Your task to perform on an android device: open app "Spotify" (install if not already installed) and enter user name: "infallible@icloud.com" and password: "implored" Image 0: 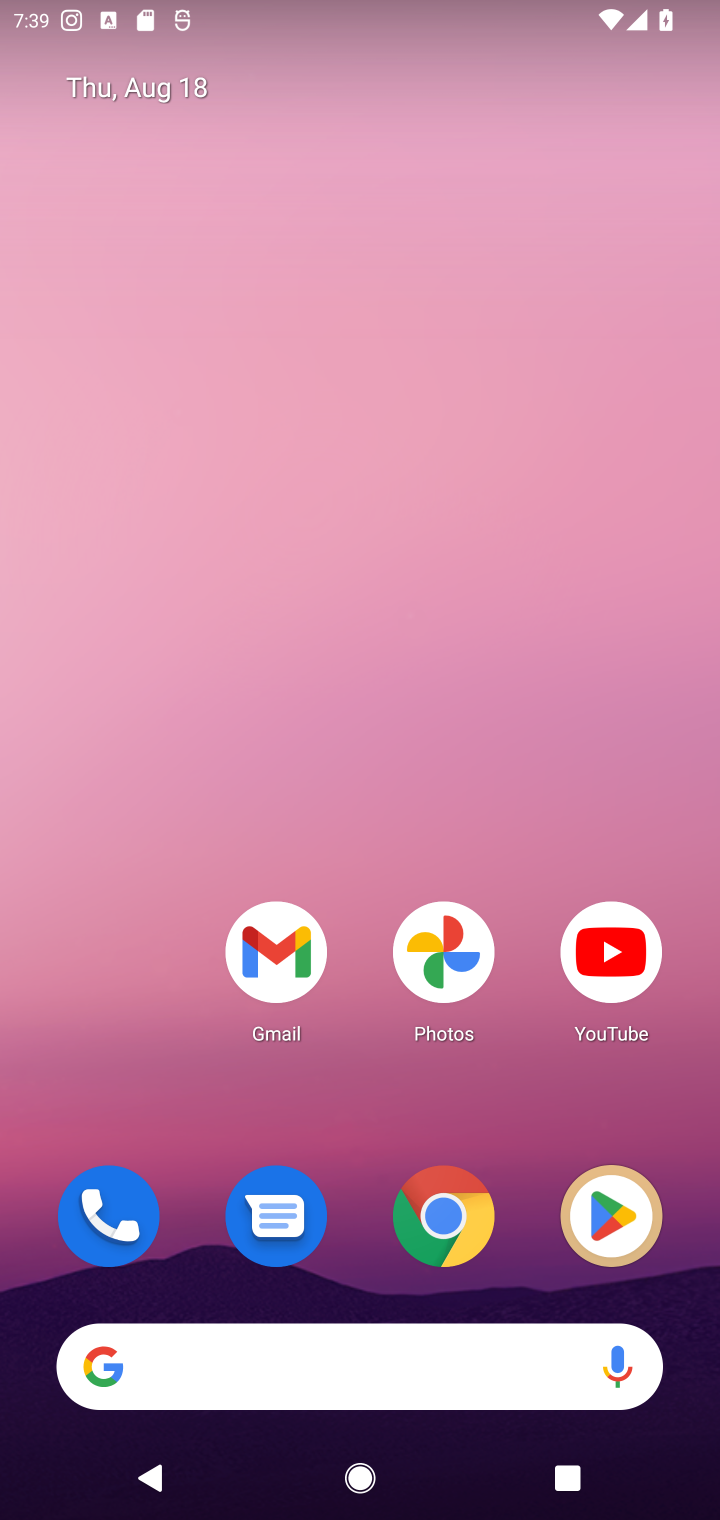
Step 0: click (615, 1209)
Your task to perform on an android device: open app "Spotify" (install if not already installed) and enter user name: "infallible@icloud.com" and password: "implored" Image 1: 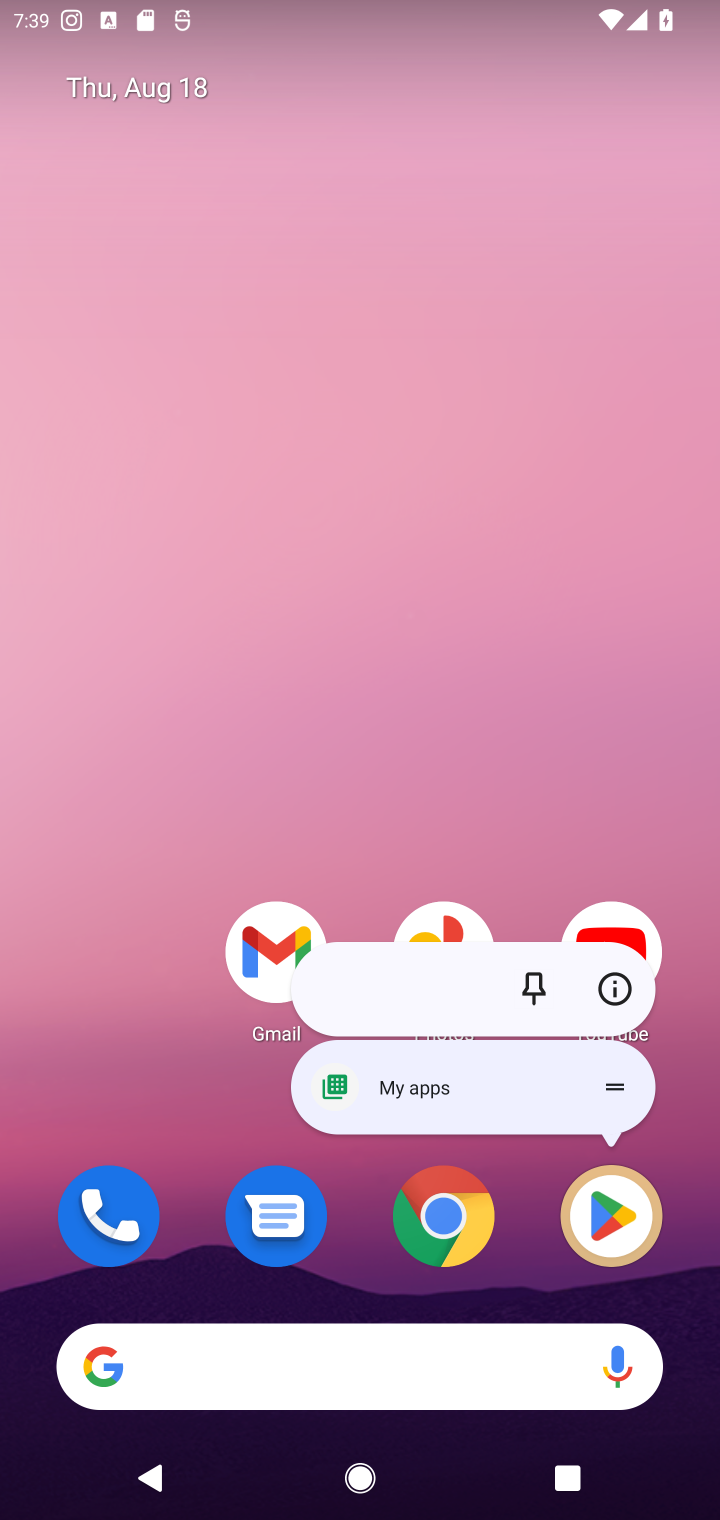
Step 1: click (602, 1194)
Your task to perform on an android device: open app "Spotify" (install if not already installed) and enter user name: "infallible@icloud.com" and password: "implored" Image 2: 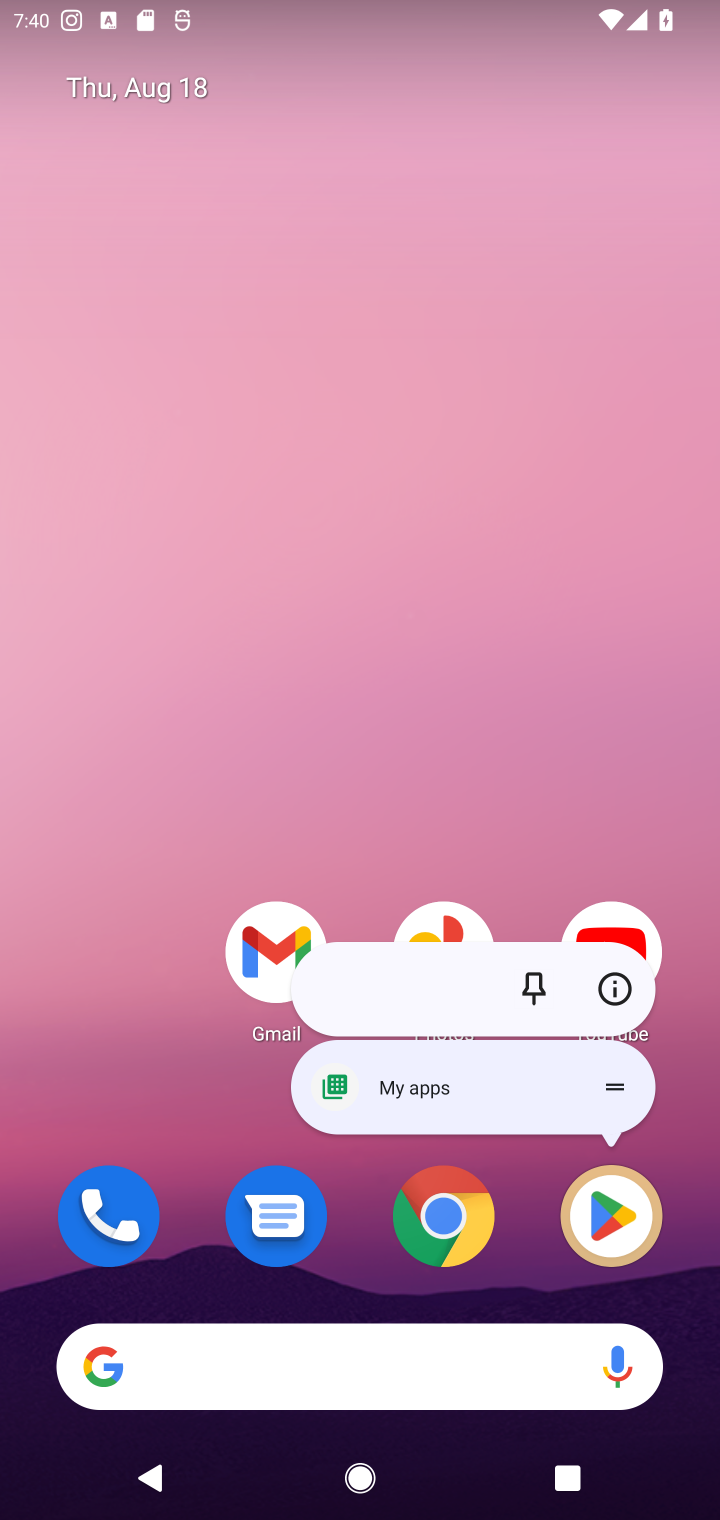
Step 2: click (602, 1194)
Your task to perform on an android device: open app "Spotify" (install if not already installed) and enter user name: "infallible@icloud.com" and password: "implored" Image 3: 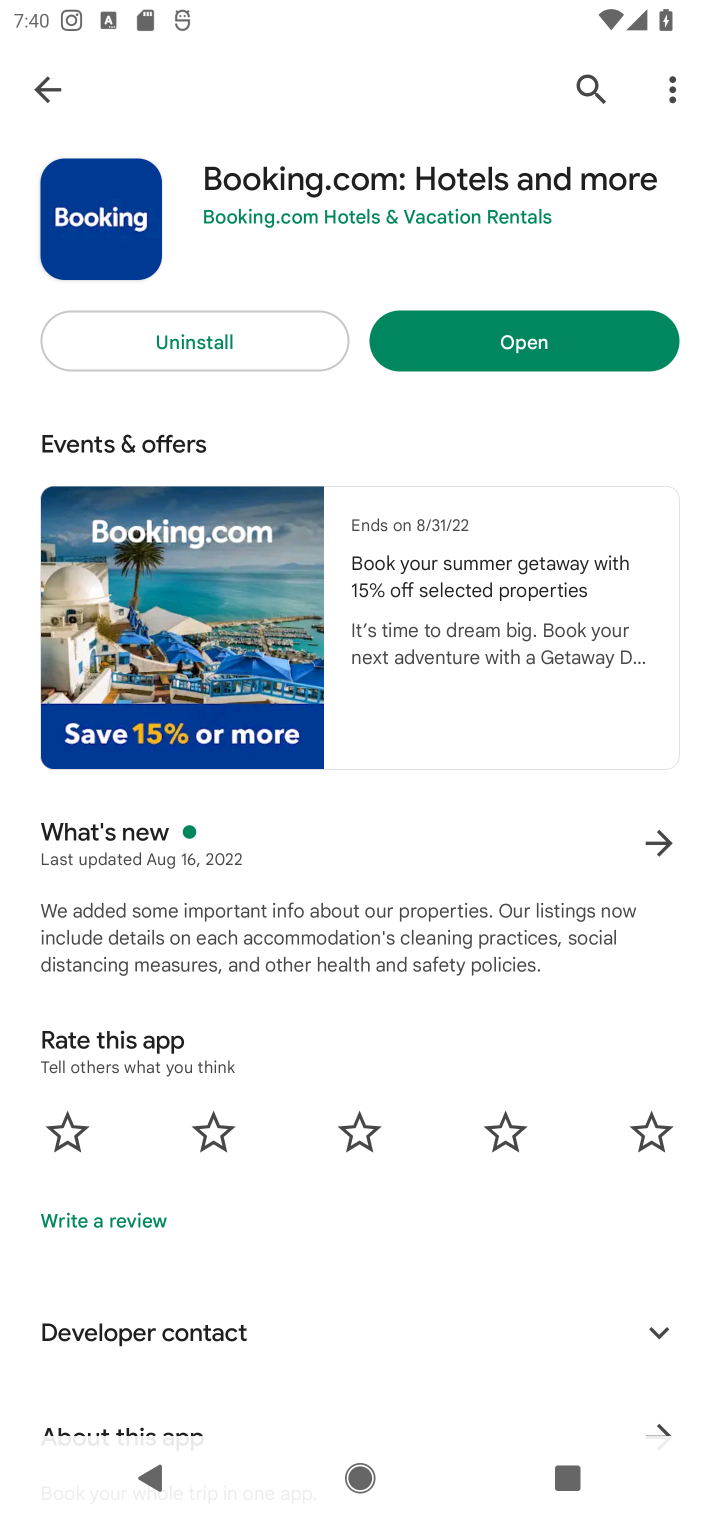
Step 3: click (573, 71)
Your task to perform on an android device: open app "Spotify" (install if not already installed) and enter user name: "infallible@icloud.com" and password: "implored" Image 4: 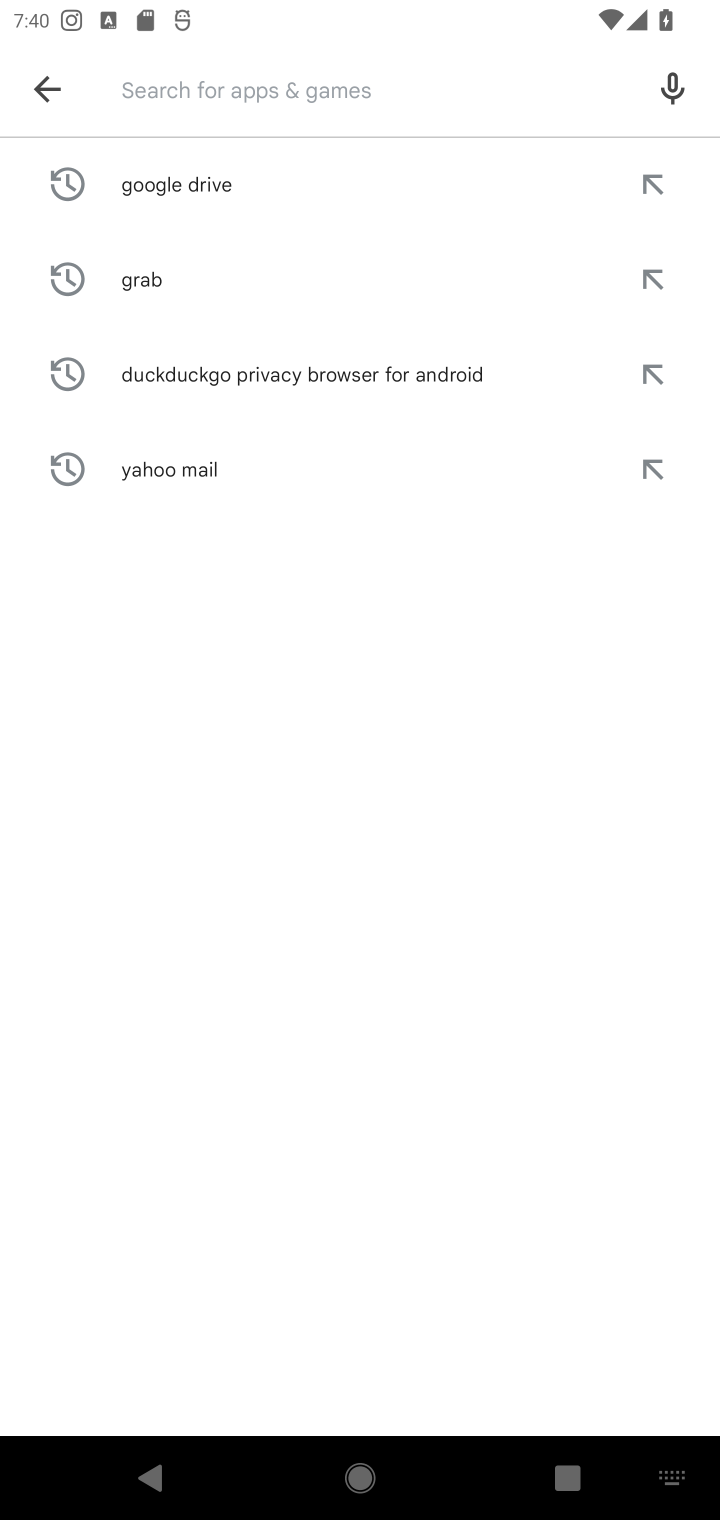
Step 4: type "Spotify"
Your task to perform on an android device: open app "Spotify" (install if not already installed) and enter user name: "infallible@icloud.com" and password: "implored" Image 5: 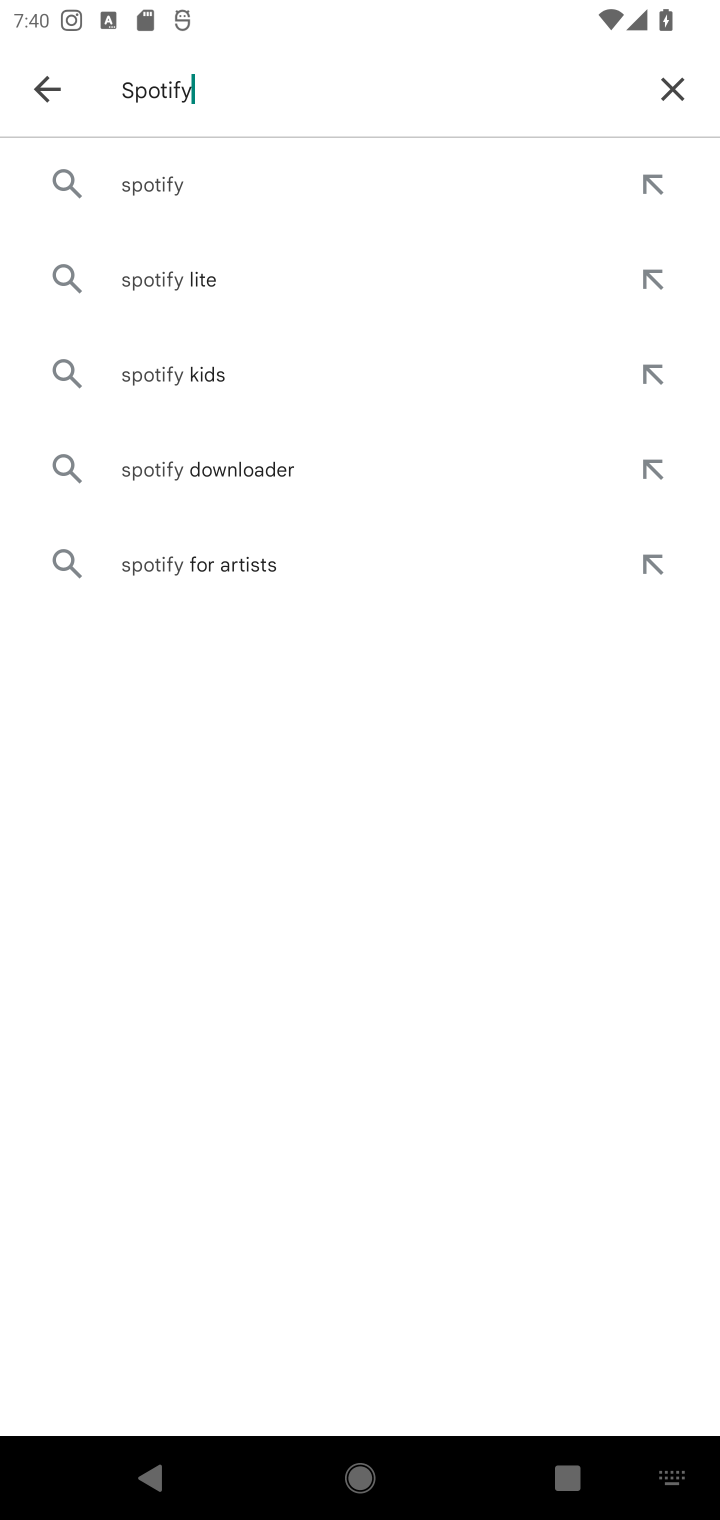
Step 5: click (264, 183)
Your task to perform on an android device: open app "Spotify" (install if not already installed) and enter user name: "infallible@icloud.com" and password: "implored" Image 6: 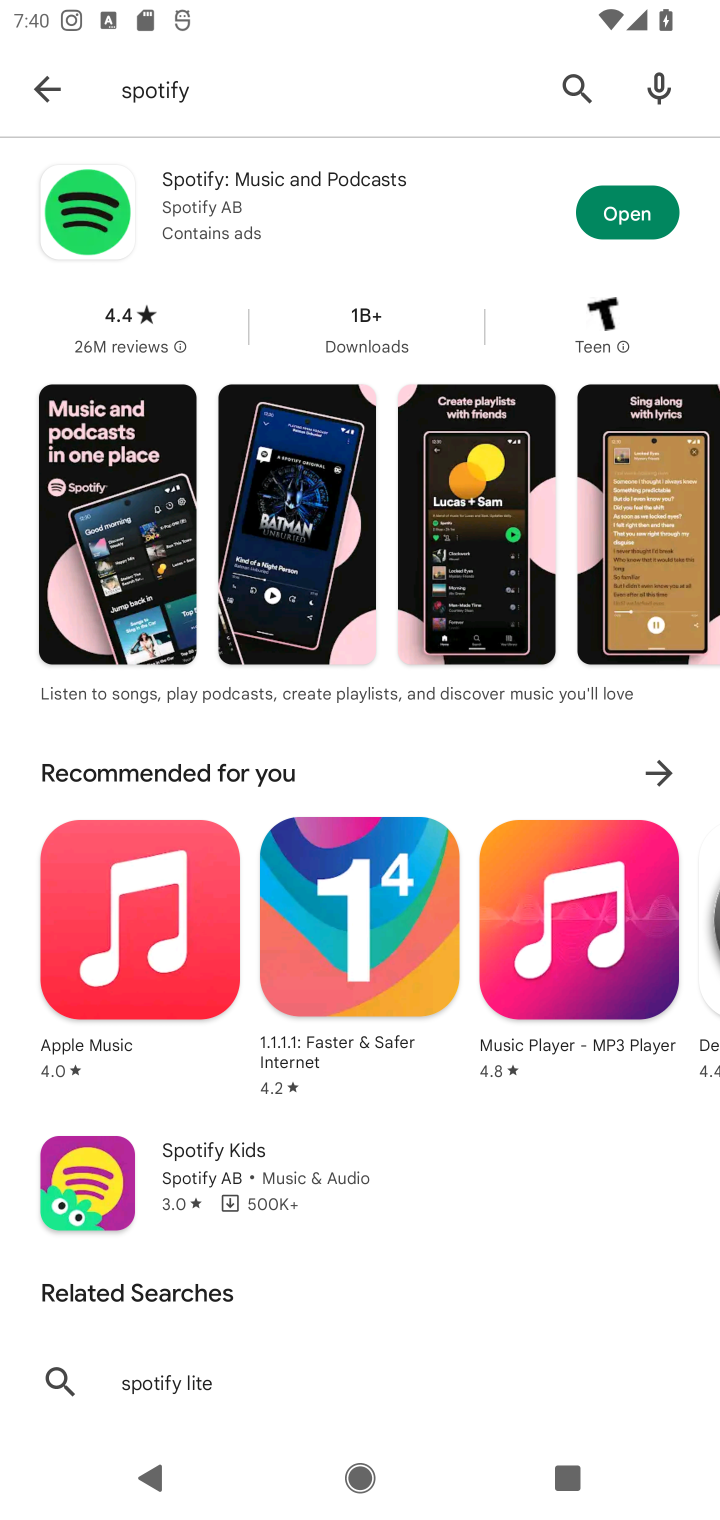
Step 6: click (598, 208)
Your task to perform on an android device: open app "Spotify" (install if not already installed) and enter user name: "infallible@icloud.com" and password: "implored" Image 7: 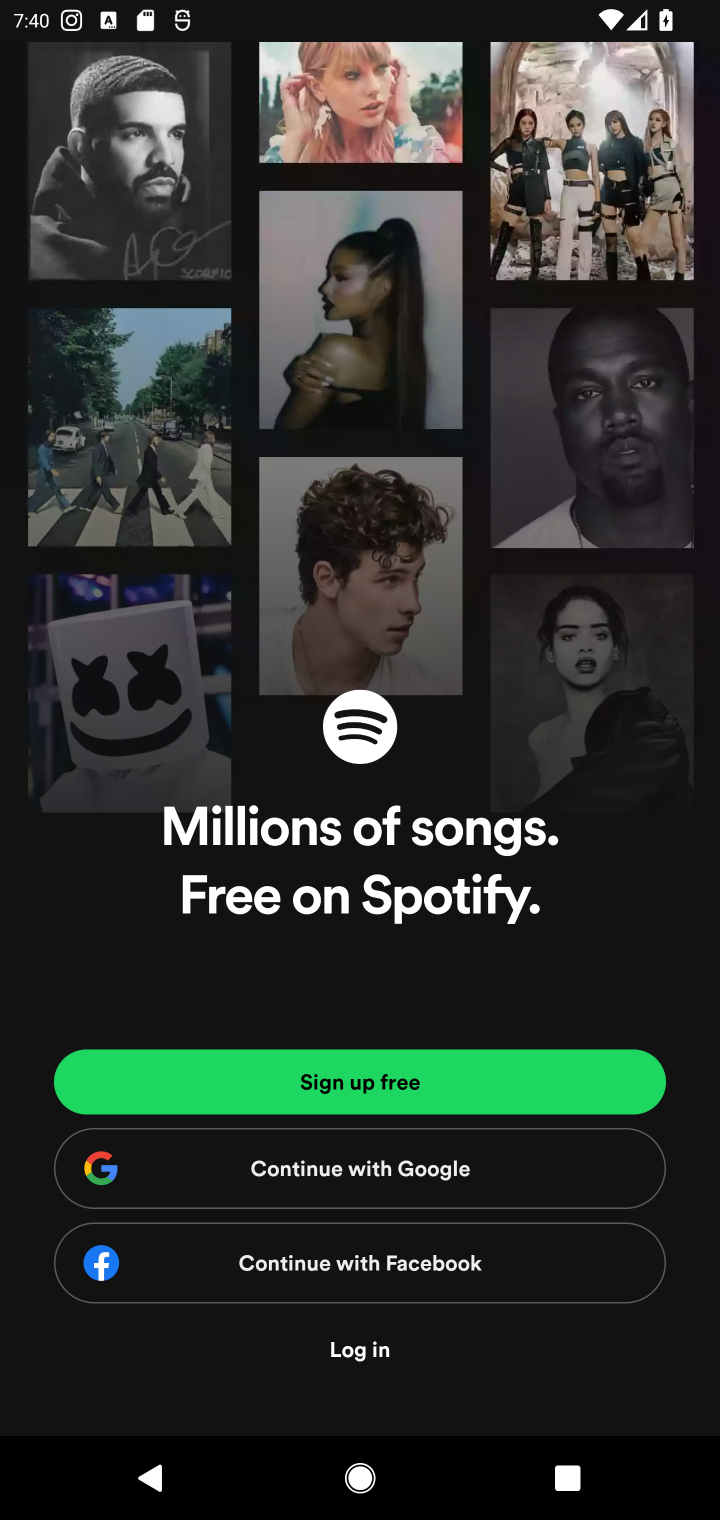
Step 7: task complete